Your task to perform on an android device: check android version Image 0: 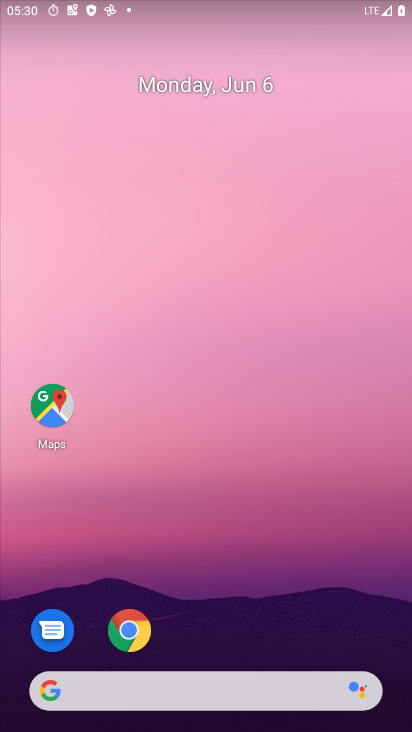
Step 0: drag from (244, 643) to (240, 19)
Your task to perform on an android device: check android version Image 1: 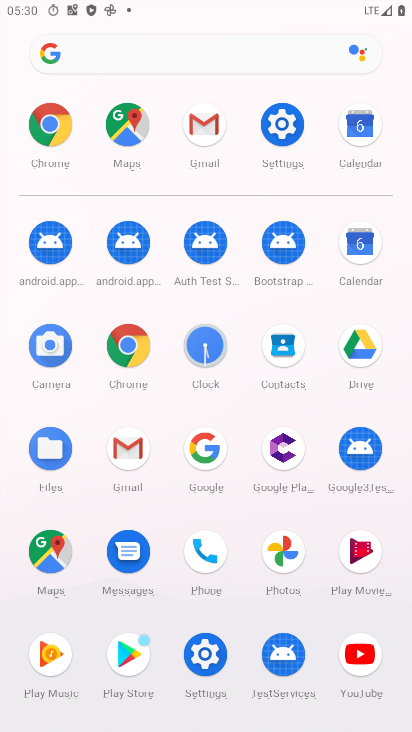
Step 1: click (210, 659)
Your task to perform on an android device: check android version Image 2: 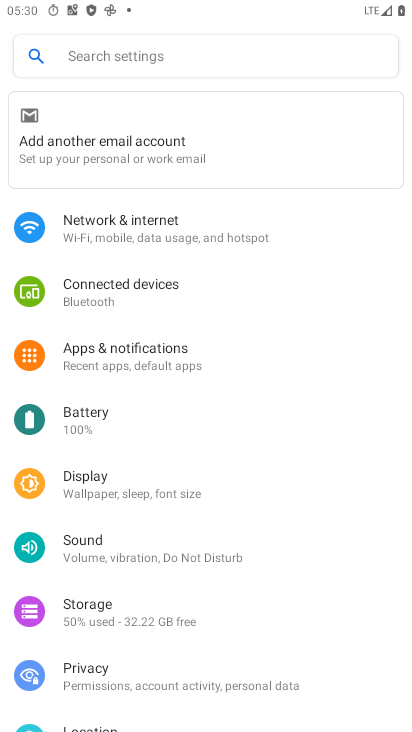
Step 2: drag from (178, 703) to (95, 193)
Your task to perform on an android device: check android version Image 3: 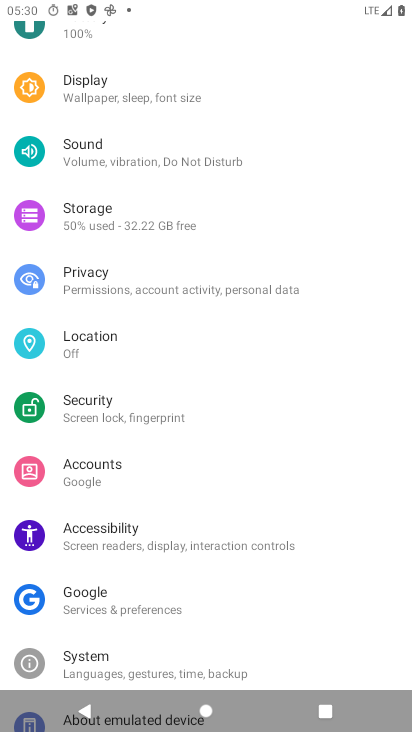
Step 3: drag from (247, 652) to (243, 173)
Your task to perform on an android device: check android version Image 4: 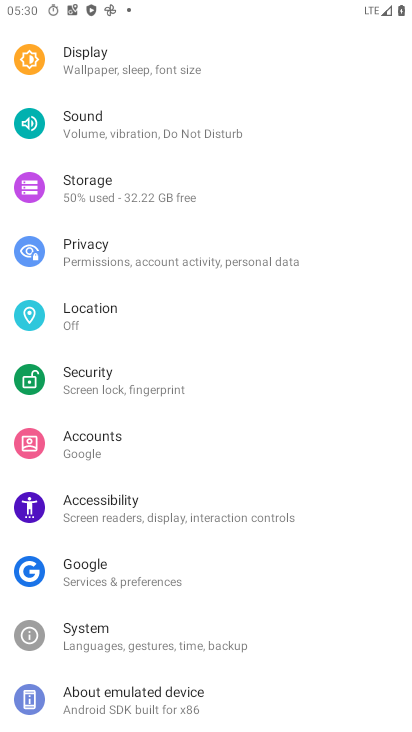
Step 4: click (134, 688)
Your task to perform on an android device: check android version Image 5: 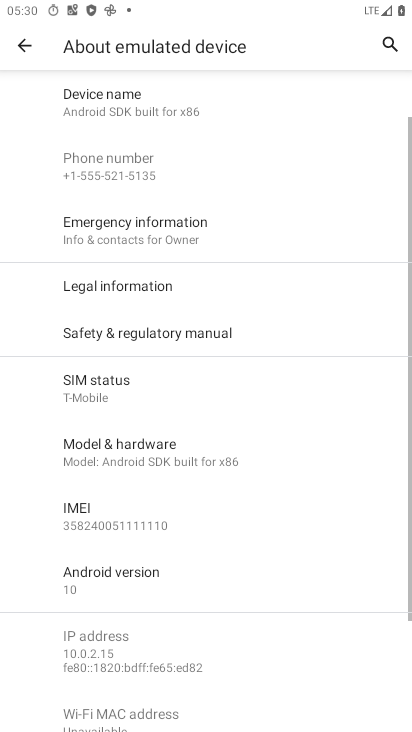
Step 5: click (110, 582)
Your task to perform on an android device: check android version Image 6: 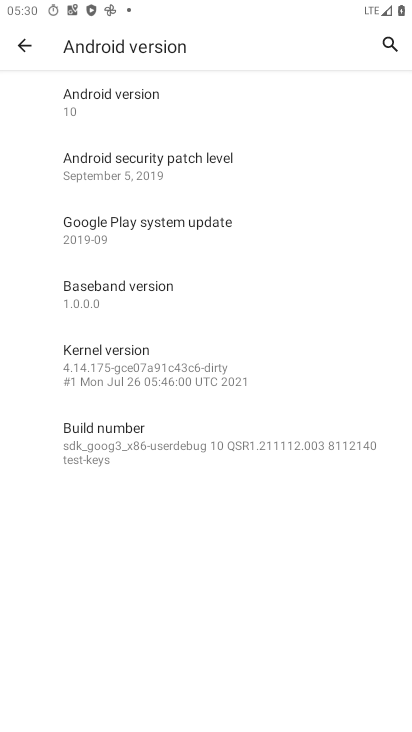
Step 6: task complete